Your task to perform on an android device: Is it going to rain today? Image 0: 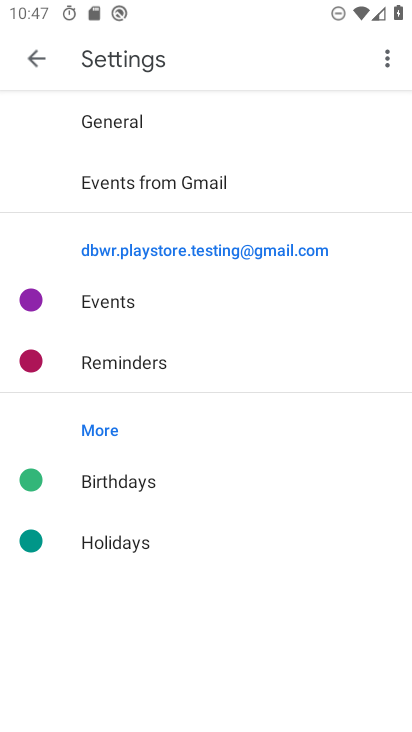
Step 0: press home button
Your task to perform on an android device: Is it going to rain today? Image 1: 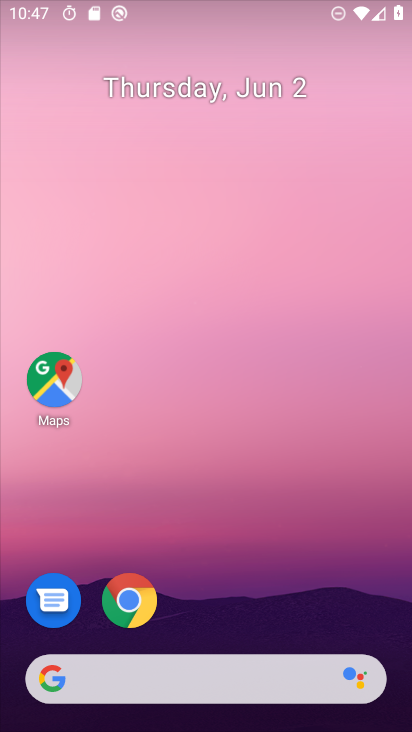
Step 1: drag from (233, 607) to (257, 53)
Your task to perform on an android device: Is it going to rain today? Image 2: 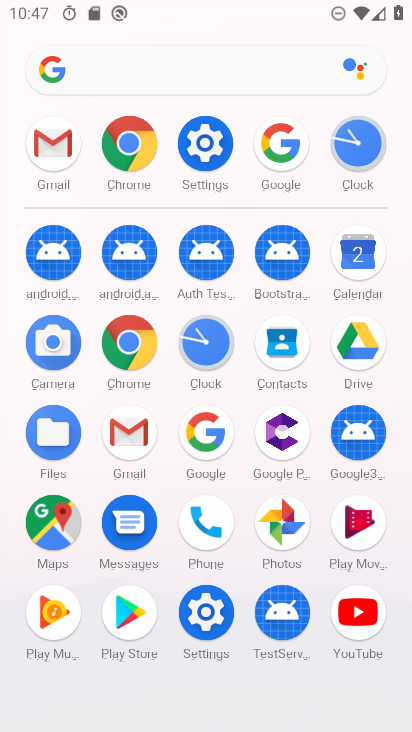
Step 2: click (211, 438)
Your task to perform on an android device: Is it going to rain today? Image 3: 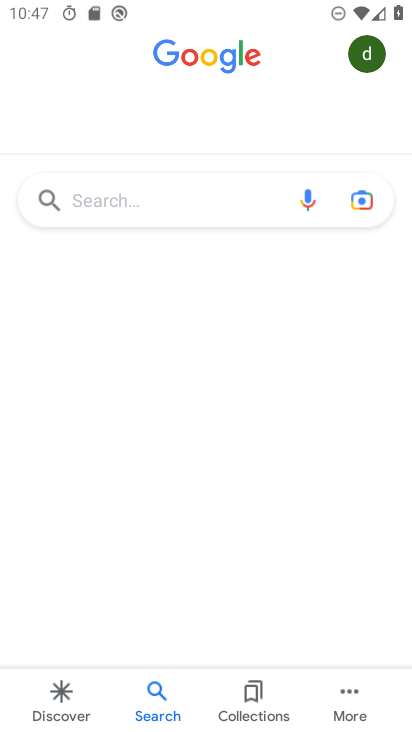
Step 3: click (159, 202)
Your task to perform on an android device: Is it going to rain today? Image 4: 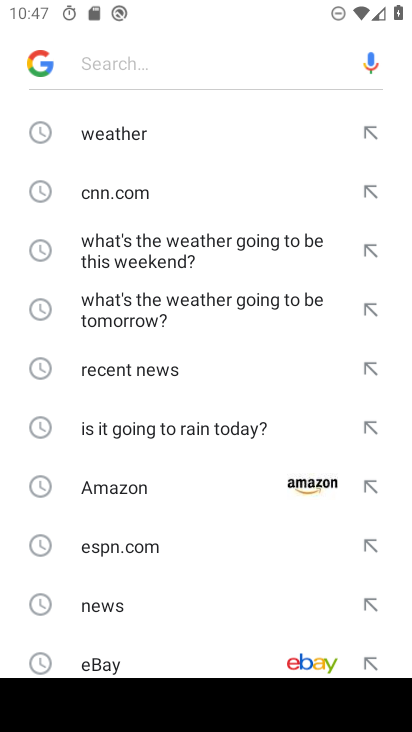
Step 4: click (175, 432)
Your task to perform on an android device: Is it going to rain today? Image 5: 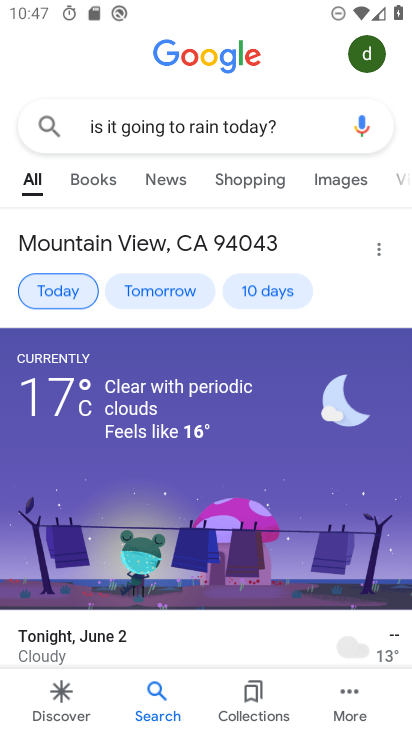
Step 5: task complete